Your task to perform on an android device: Search for sushi restaurants on Maps Image 0: 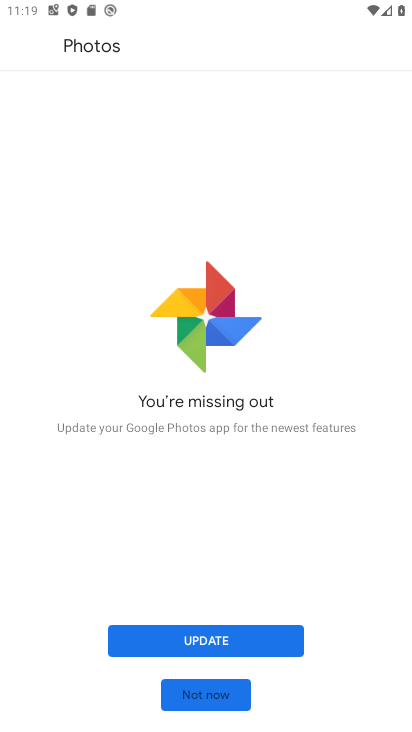
Step 0: press home button
Your task to perform on an android device: Search for sushi restaurants on Maps Image 1: 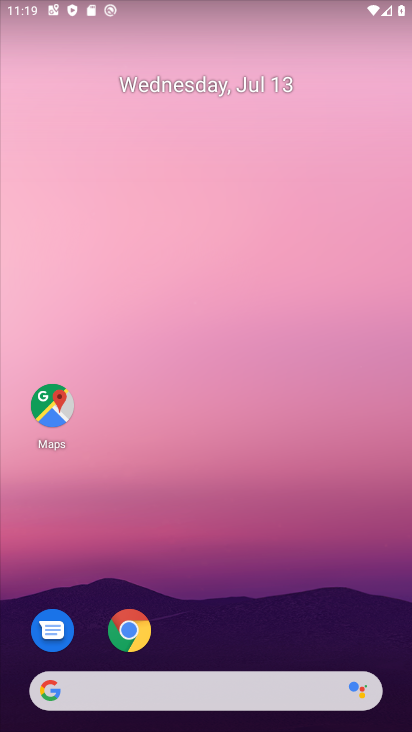
Step 1: drag from (361, 612) to (68, 417)
Your task to perform on an android device: Search for sushi restaurants on Maps Image 2: 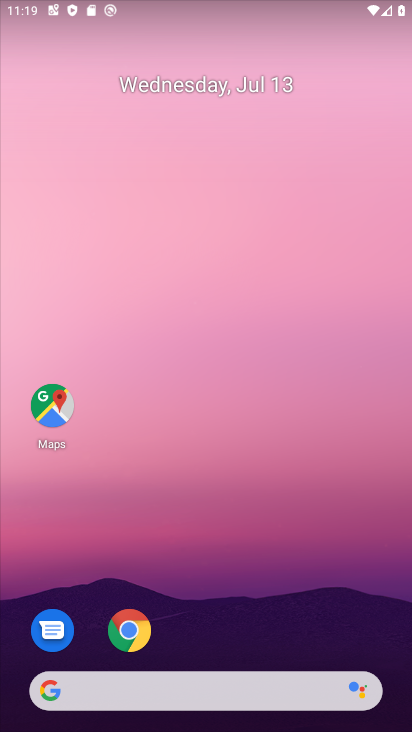
Step 2: drag from (333, 626) to (382, 147)
Your task to perform on an android device: Search for sushi restaurants on Maps Image 3: 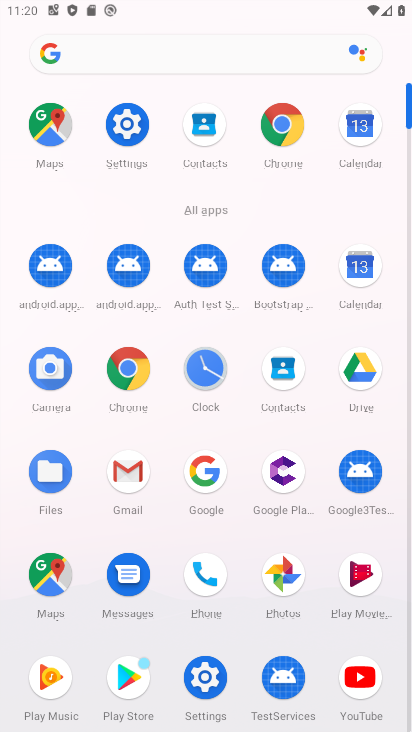
Step 3: click (57, 581)
Your task to perform on an android device: Search for sushi restaurants on Maps Image 4: 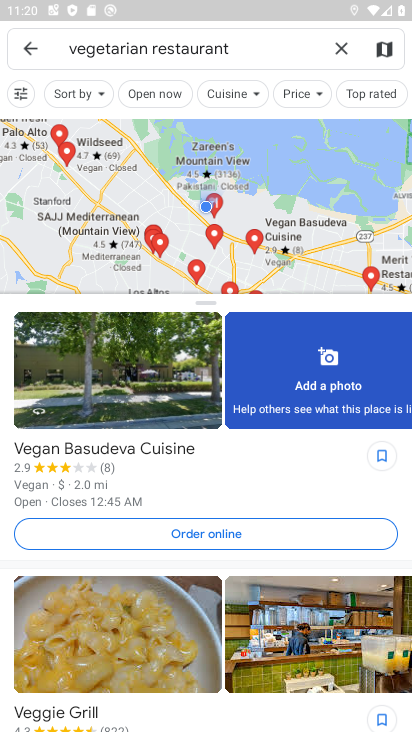
Step 4: press back button
Your task to perform on an android device: Search for sushi restaurants on Maps Image 5: 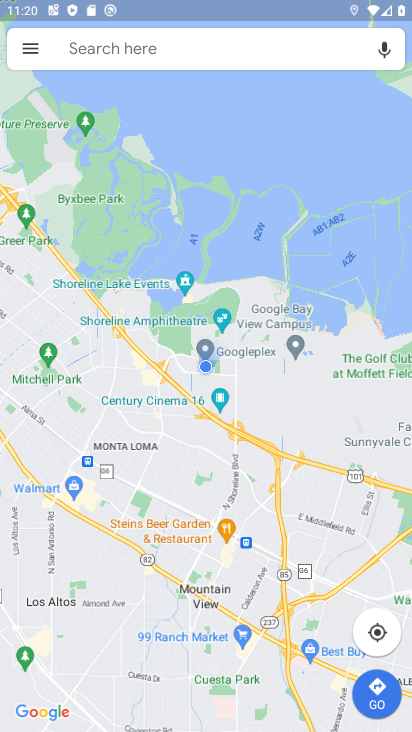
Step 5: click (174, 57)
Your task to perform on an android device: Search for sushi restaurants on Maps Image 6: 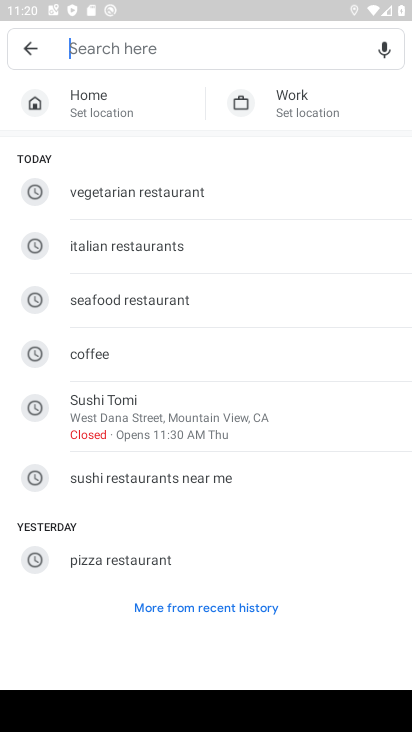
Step 6: type "sushi restaurants"
Your task to perform on an android device: Search for sushi restaurants on Maps Image 7: 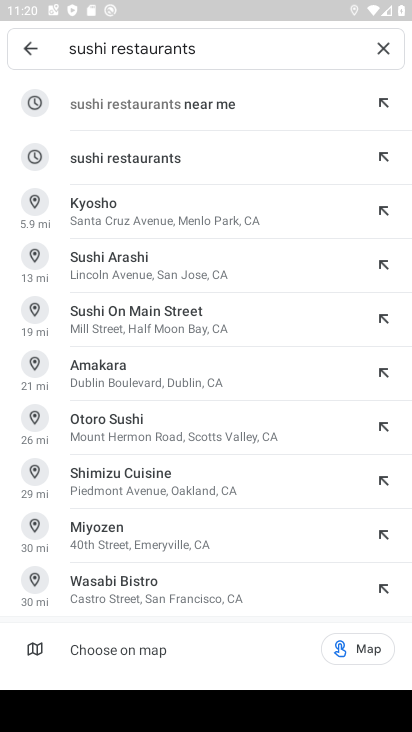
Step 7: click (165, 165)
Your task to perform on an android device: Search for sushi restaurants on Maps Image 8: 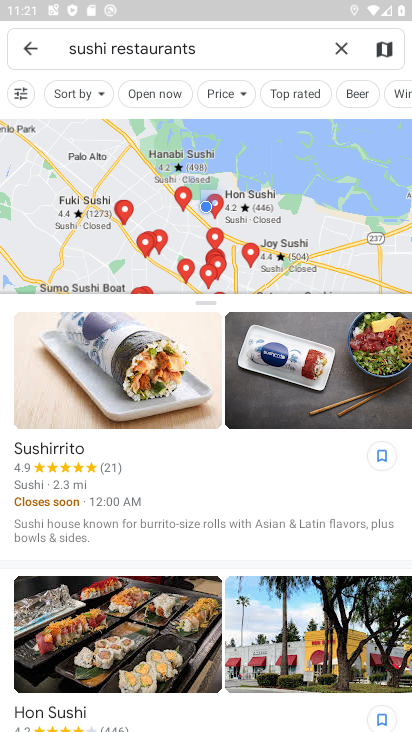
Step 8: task complete